Your task to perform on an android device: What's on my calendar today? Image 0: 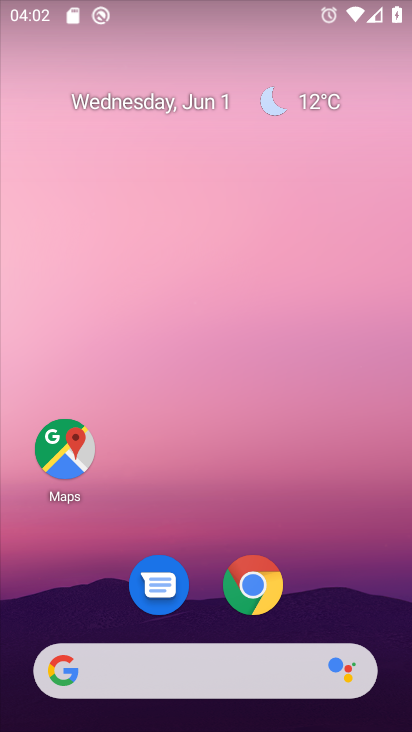
Step 0: drag from (313, 434) to (315, 4)
Your task to perform on an android device: What's on my calendar today? Image 1: 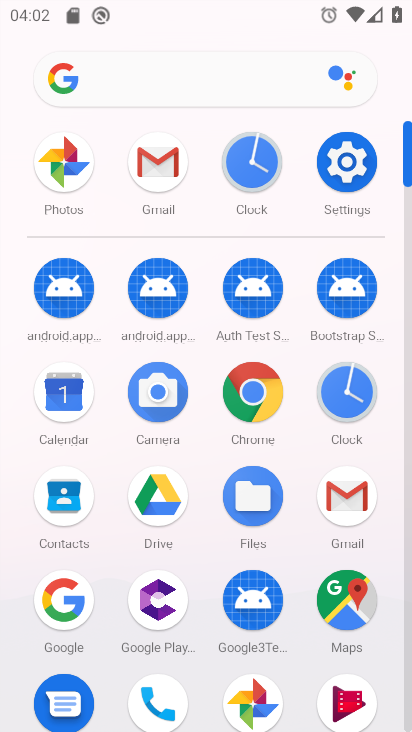
Step 1: click (61, 389)
Your task to perform on an android device: What's on my calendar today? Image 2: 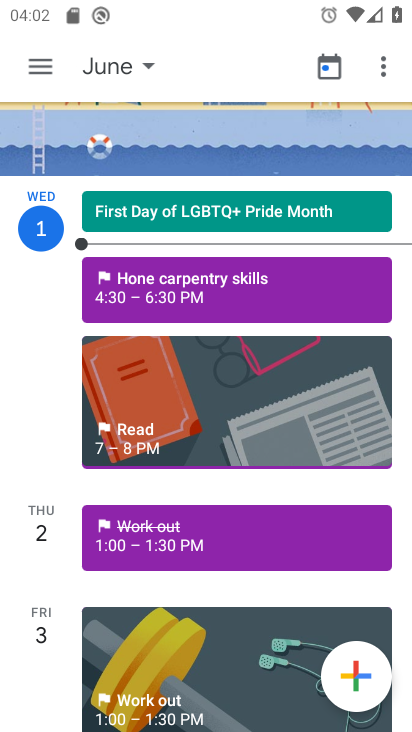
Step 2: task complete